Your task to perform on an android device: turn off notifications in google photos Image 0: 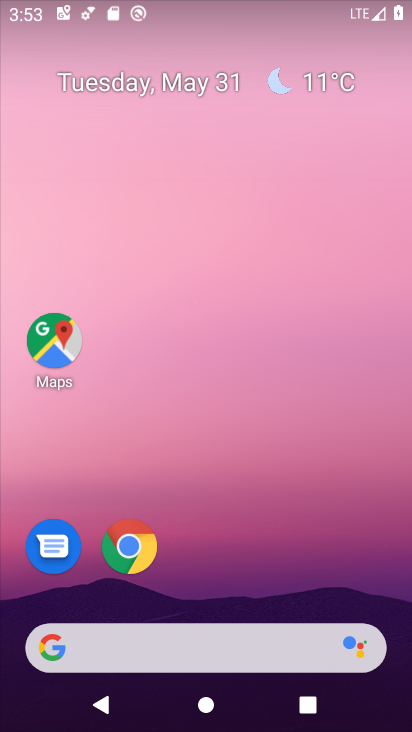
Step 0: drag from (301, 524) to (140, 12)
Your task to perform on an android device: turn off notifications in google photos Image 1: 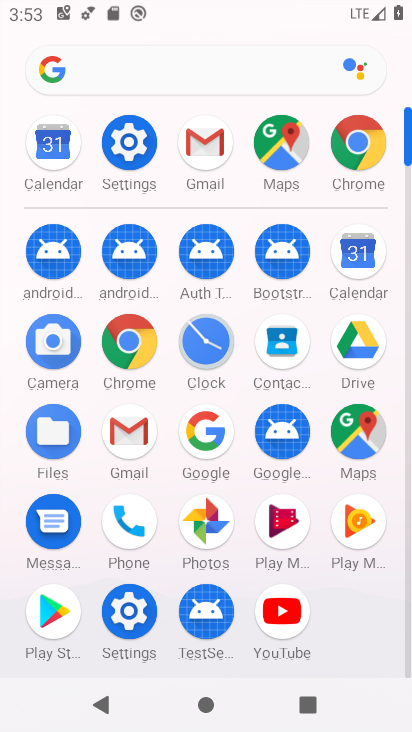
Step 1: click (205, 526)
Your task to perform on an android device: turn off notifications in google photos Image 2: 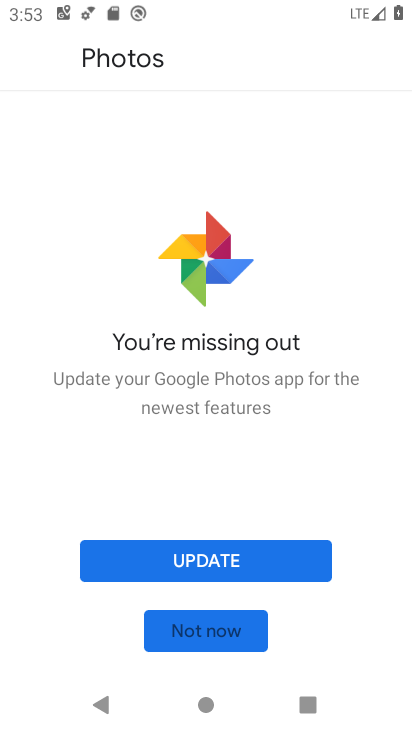
Step 2: click (251, 568)
Your task to perform on an android device: turn off notifications in google photos Image 3: 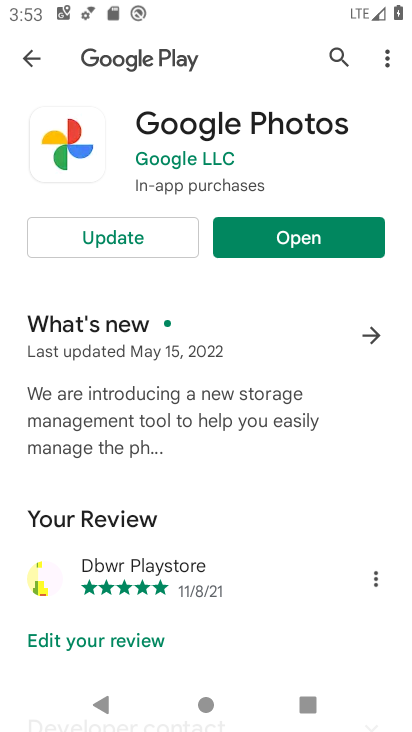
Step 3: click (150, 232)
Your task to perform on an android device: turn off notifications in google photos Image 4: 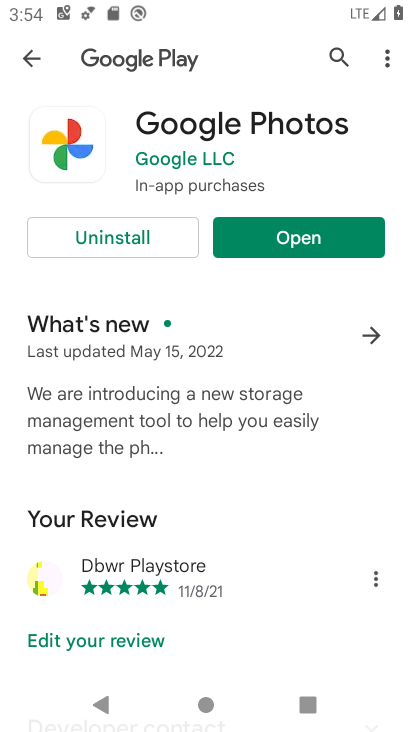
Step 4: click (322, 236)
Your task to perform on an android device: turn off notifications in google photos Image 5: 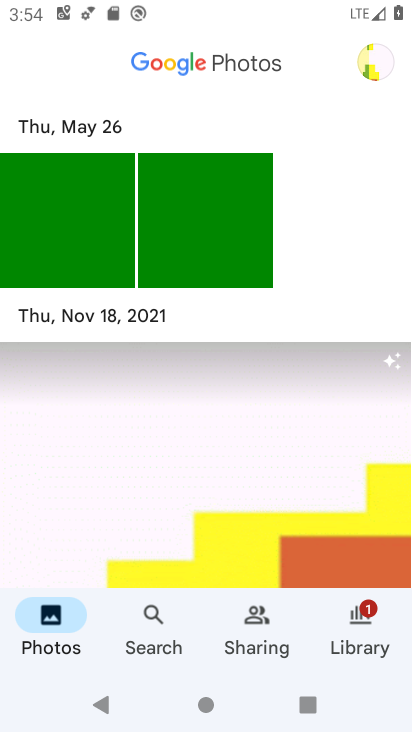
Step 5: click (375, 64)
Your task to perform on an android device: turn off notifications in google photos Image 6: 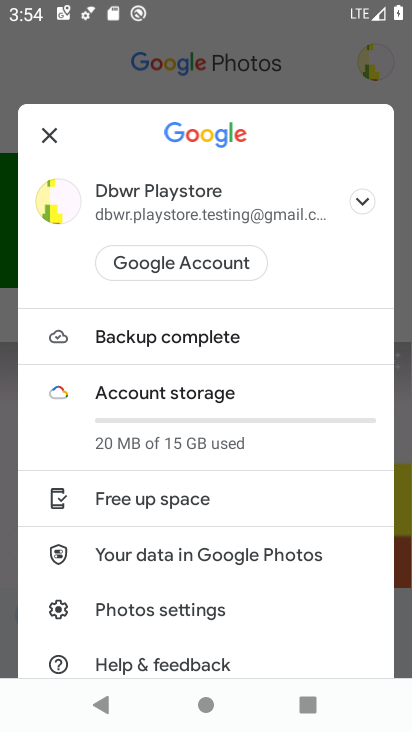
Step 6: click (185, 601)
Your task to perform on an android device: turn off notifications in google photos Image 7: 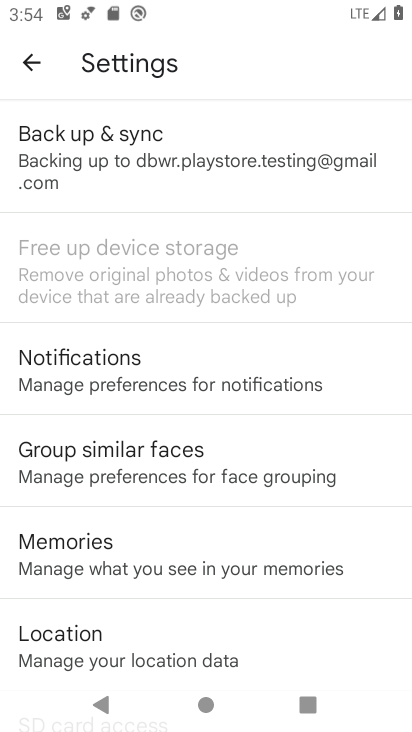
Step 7: click (170, 390)
Your task to perform on an android device: turn off notifications in google photos Image 8: 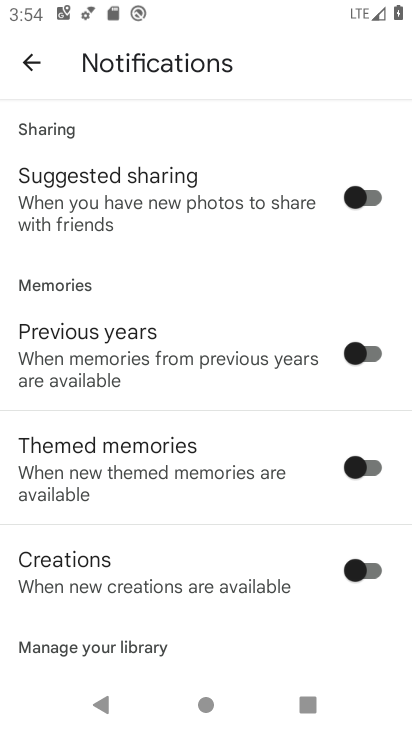
Step 8: task complete